Your task to perform on an android device: Open sound settings Image 0: 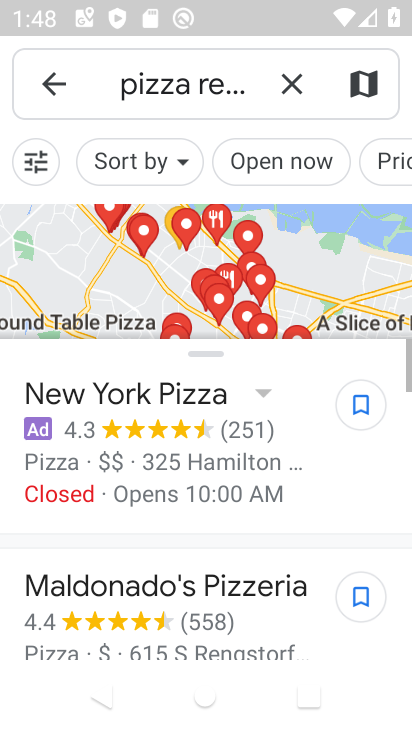
Step 0: press home button
Your task to perform on an android device: Open sound settings Image 1: 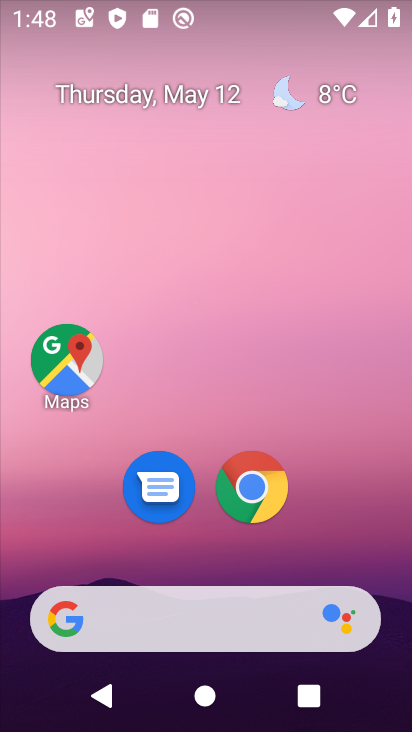
Step 1: drag from (277, 549) to (275, 61)
Your task to perform on an android device: Open sound settings Image 2: 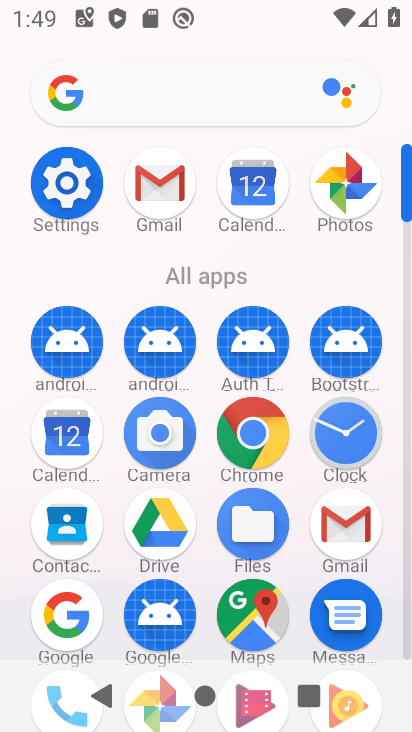
Step 2: click (64, 177)
Your task to perform on an android device: Open sound settings Image 3: 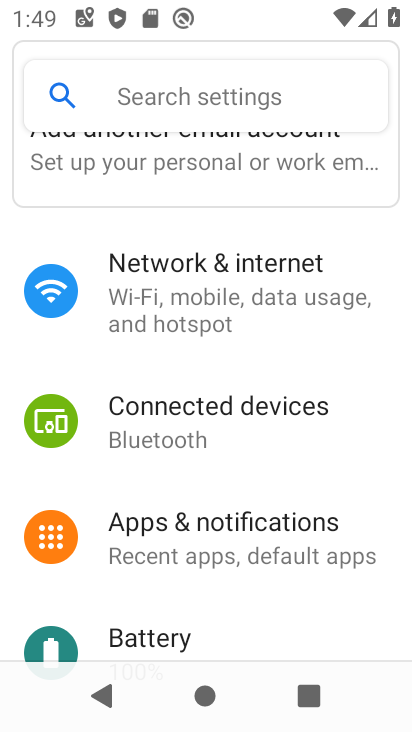
Step 3: drag from (207, 575) to (175, 280)
Your task to perform on an android device: Open sound settings Image 4: 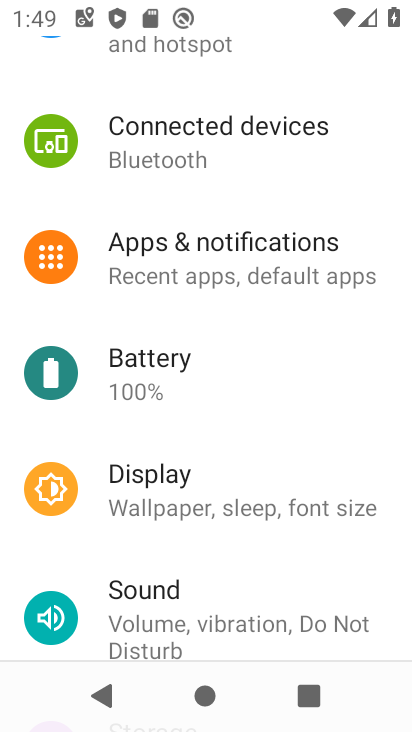
Step 4: click (190, 605)
Your task to perform on an android device: Open sound settings Image 5: 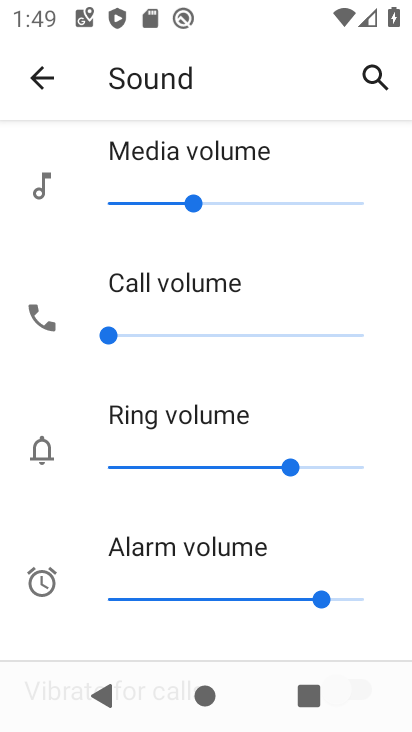
Step 5: task complete